Your task to perform on an android device: Go to notification settings Image 0: 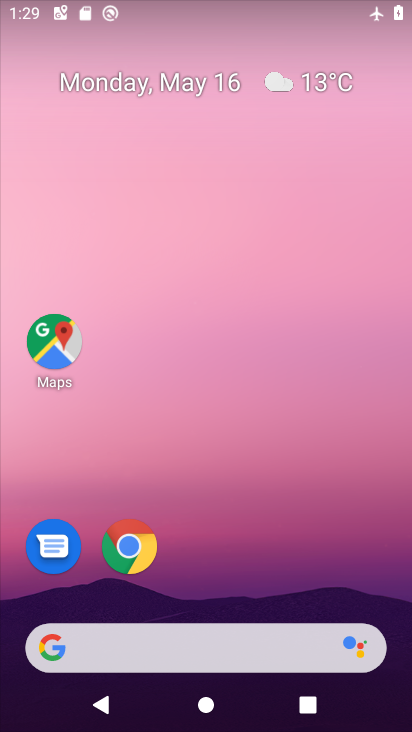
Step 0: drag from (217, 726) to (218, 149)
Your task to perform on an android device: Go to notification settings Image 1: 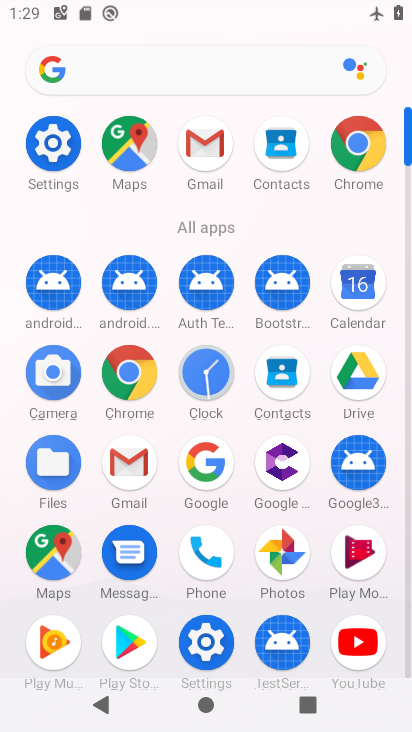
Step 1: click (51, 143)
Your task to perform on an android device: Go to notification settings Image 2: 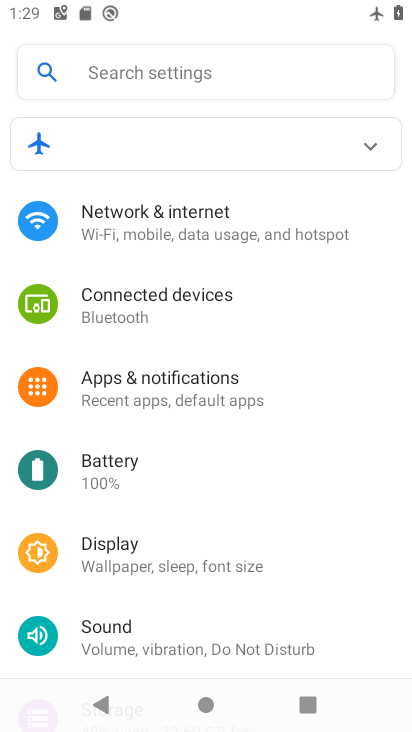
Step 2: click (114, 388)
Your task to perform on an android device: Go to notification settings Image 3: 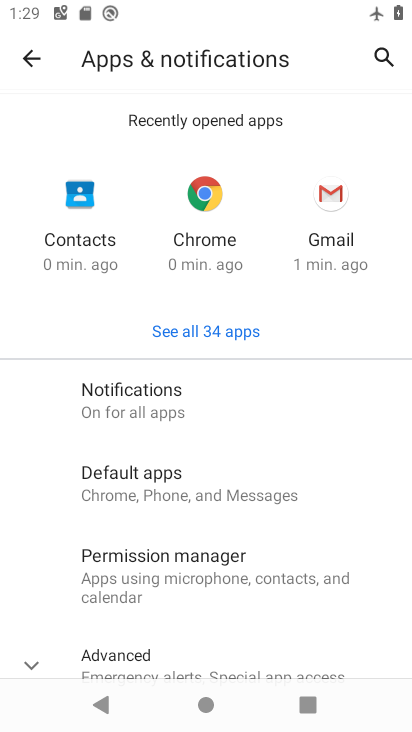
Step 3: click (114, 388)
Your task to perform on an android device: Go to notification settings Image 4: 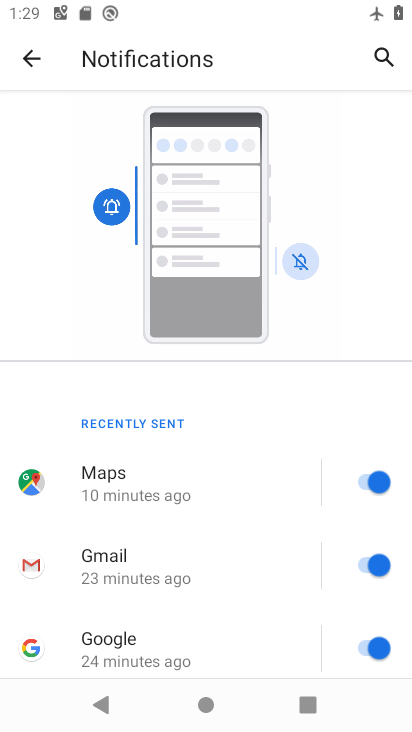
Step 4: task complete